Your task to perform on an android device: Go to Maps Image 0: 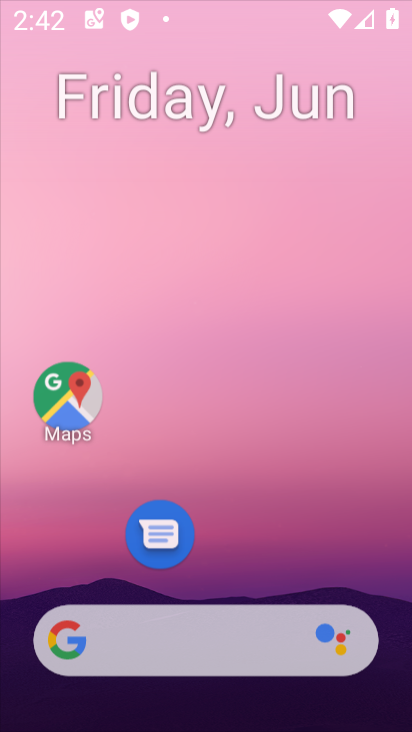
Step 0: drag from (237, 1) to (279, 32)
Your task to perform on an android device: Go to Maps Image 1: 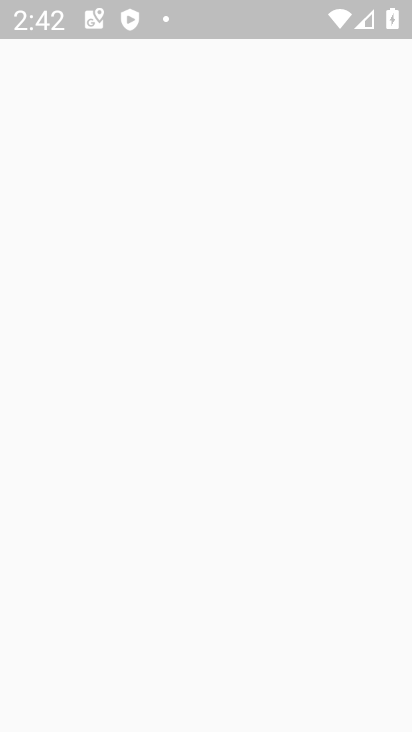
Step 1: press home button
Your task to perform on an android device: Go to Maps Image 2: 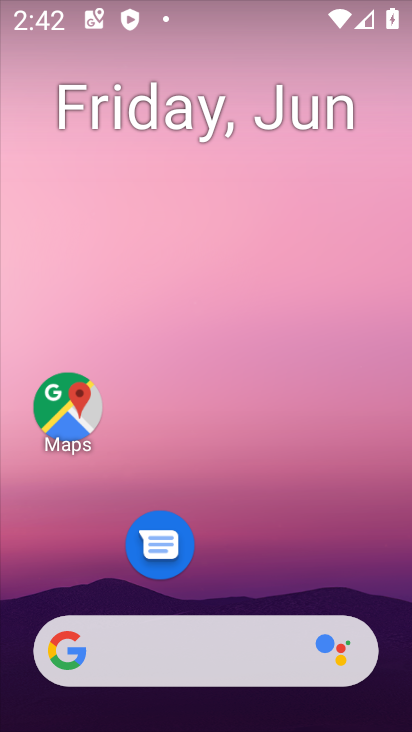
Step 2: click (82, 410)
Your task to perform on an android device: Go to Maps Image 3: 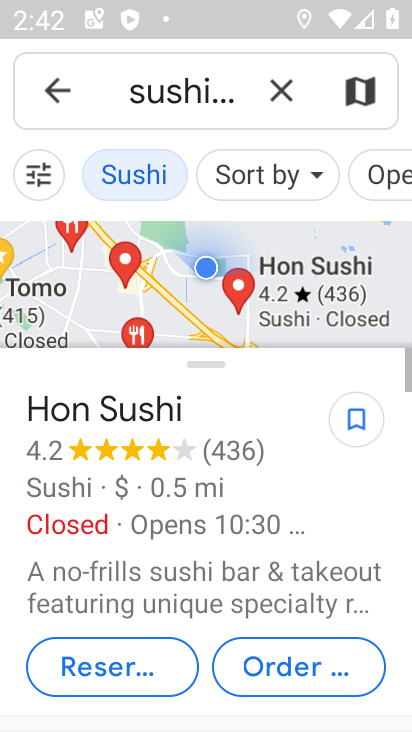
Step 3: click (54, 95)
Your task to perform on an android device: Go to Maps Image 4: 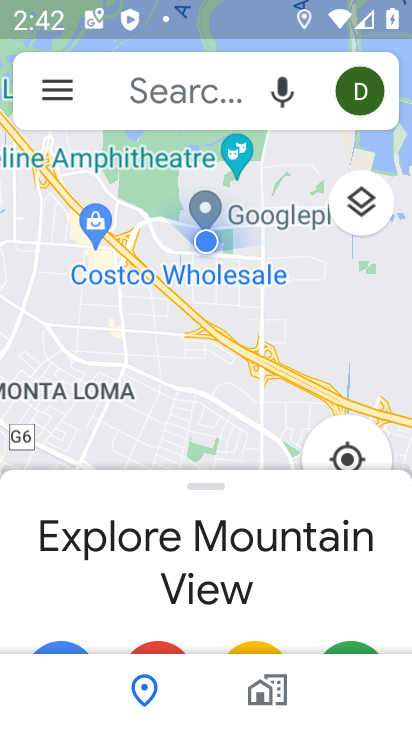
Step 4: task complete